Your task to perform on an android device: Do I have any events tomorrow? Image 0: 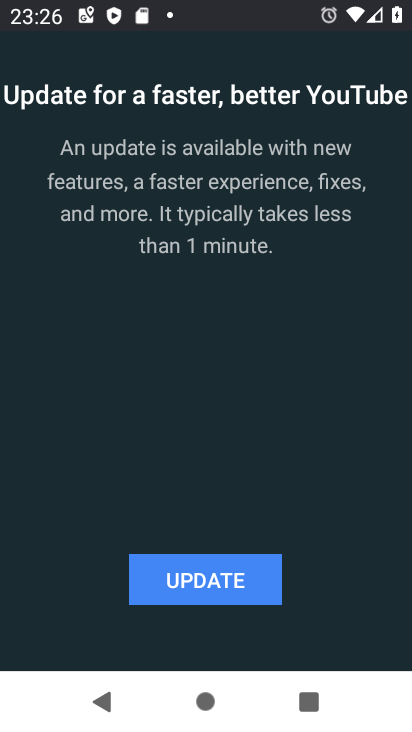
Step 0: press home button
Your task to perform on an android device: Do I have any events tomorrow? Image 1: 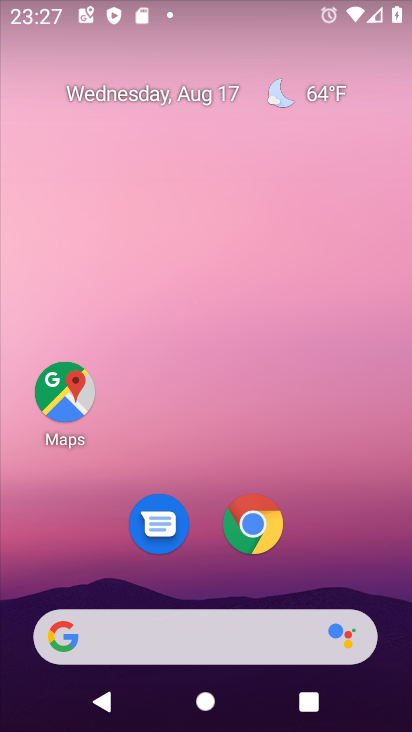
Step 1: drag from (334, 518) to (336, 0)
Your task to perform on an android device: Do I have any events tomorrow? Image 2: 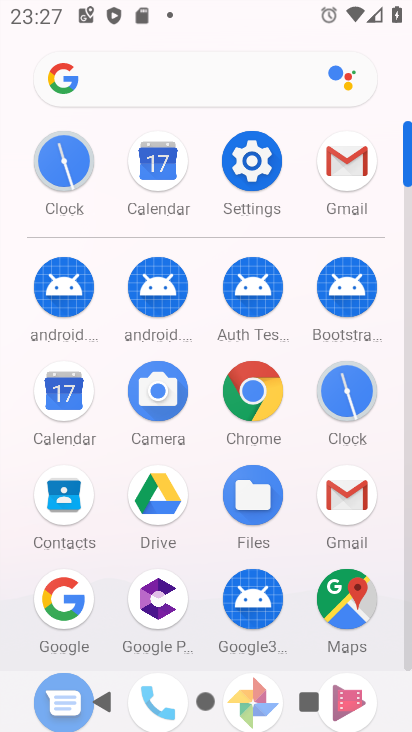
Step 2: click (163, 159)
Your task to perform on an android device: Do I have any events tomorrow? Image 3: 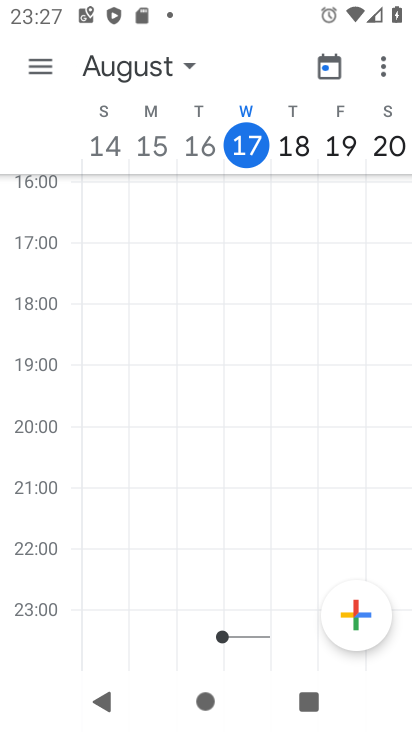
Step 3: task complete